Your task to perform on an android device: Open privacy settings Image 0: 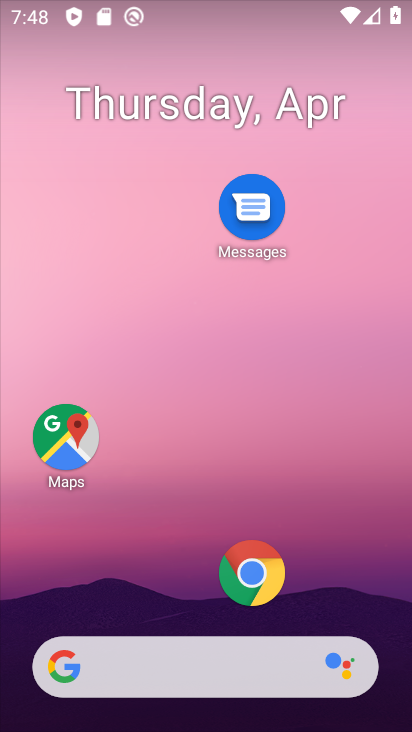
Step 0: drag from (187, 608) to (164, 57)
Your task to perform on an android device: Open privacy settings Image 1: 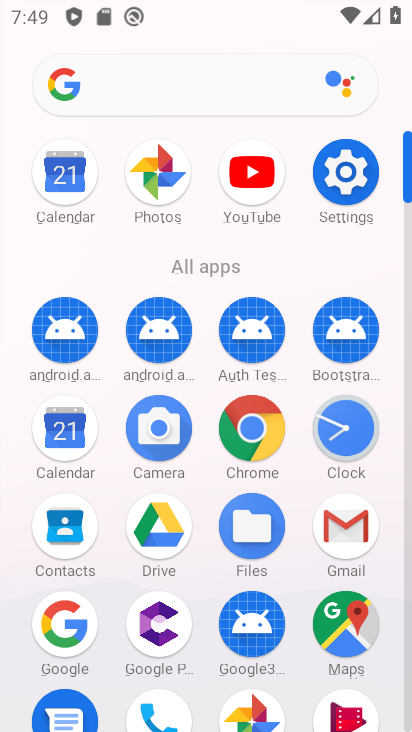
Step 1: click (345, 166)
Your task to perform on an android device: Open privacy settings Image 2: 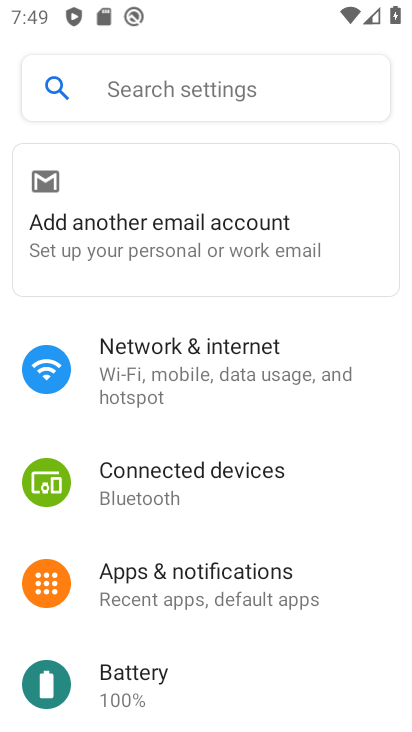
Step 2: drag from (91, 690) to (79, 249)
Your task to perform on an android device: Open privacy settings Image 3: 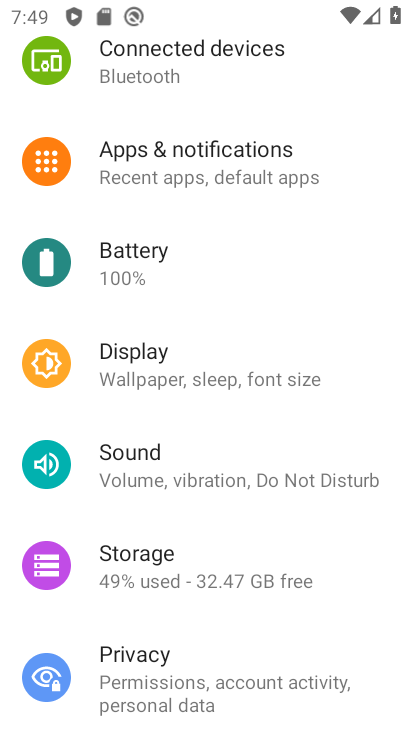
Step 3: click (86, 678)
Your task to perform on an android device: Open privacy settings Image 4: 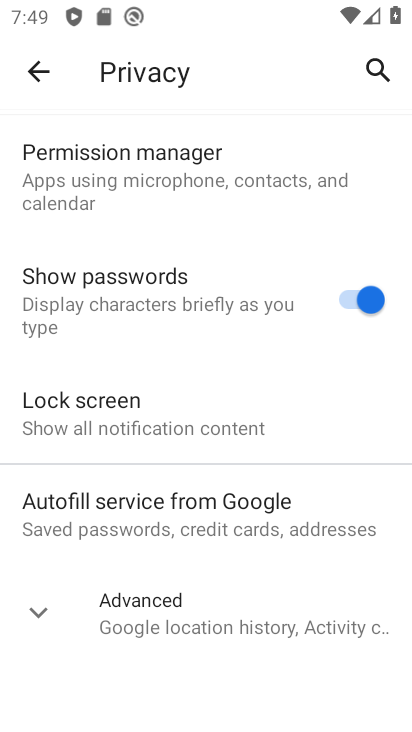
Step 4: click (35, 603)
Your task to perform on an android device: Open privacy settings Image 5: 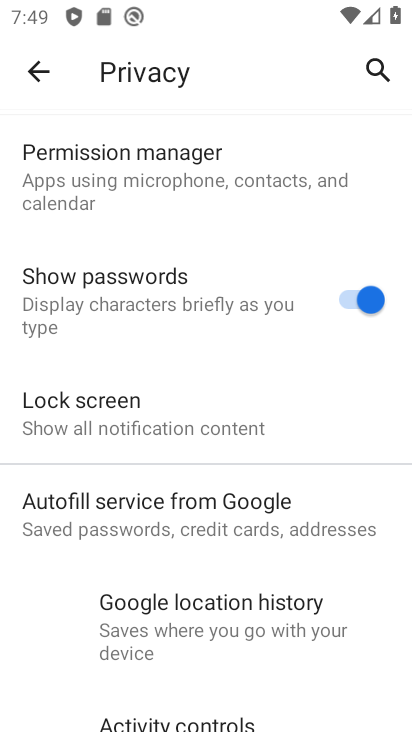
Step 5: task complete